Your task to perform on an android device: open the mobile data screen to see how much data has been used Image 0: 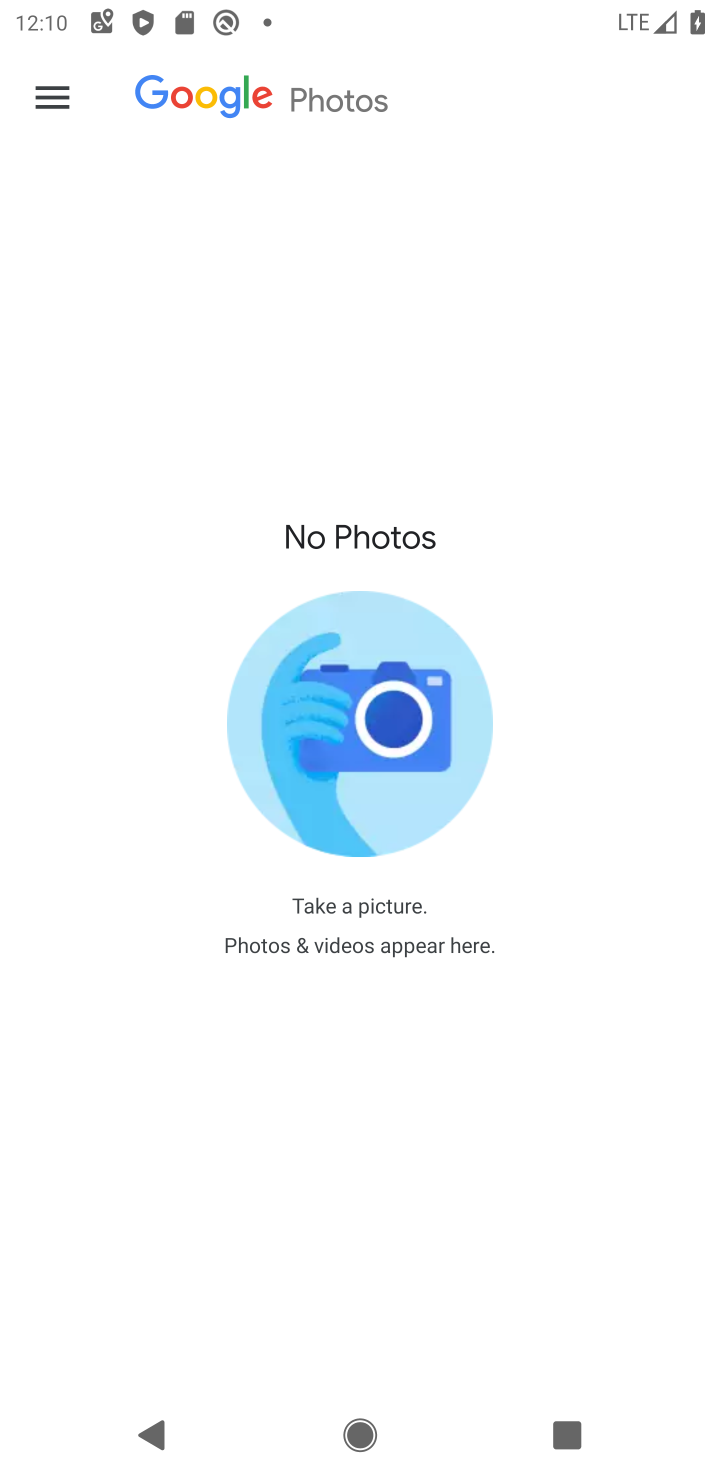
Step 0: press home button
Your task to perform on an android device: open the mobile data screen to see how much data has been used Image 1: 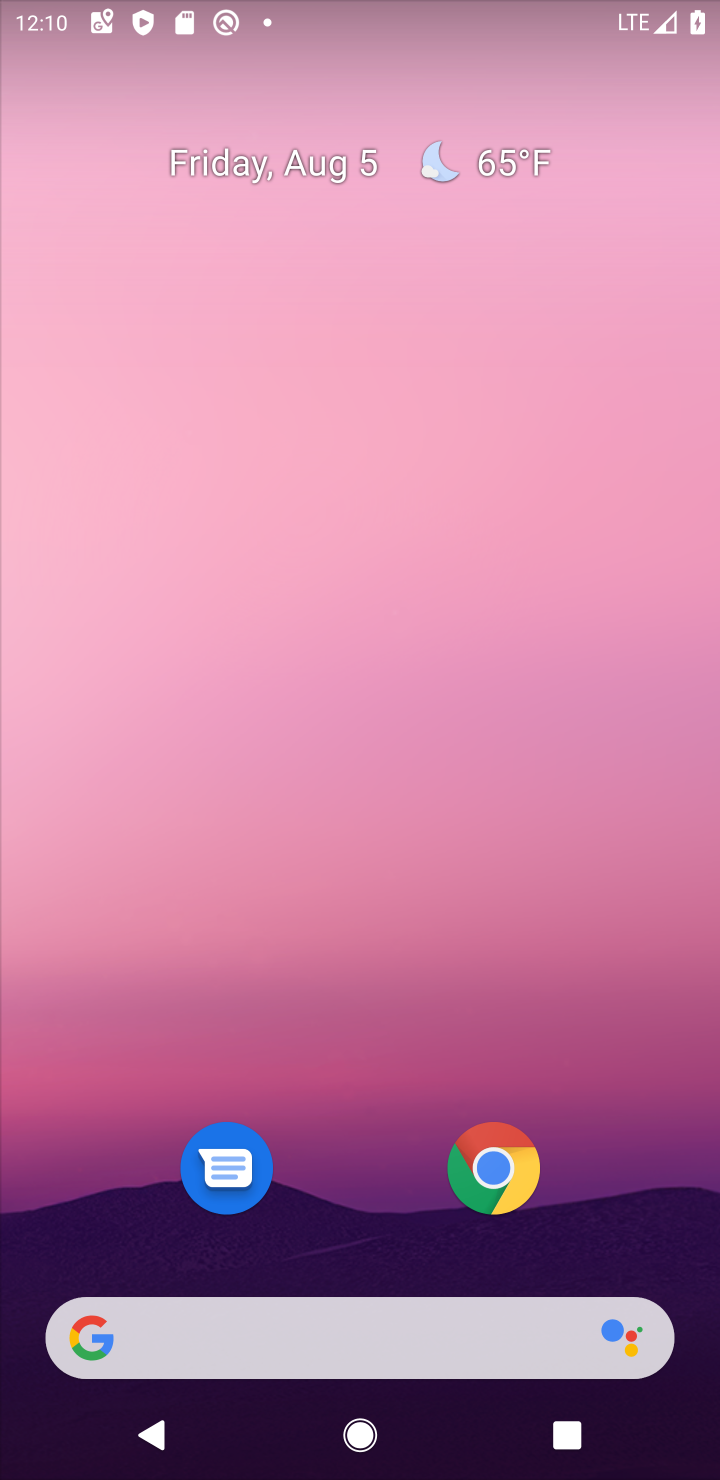
Step 1: drag from (655, 1209) to (363, 102)
Your task to perform on an android device: open the mobile data screen to see how much data has been used Image 2: 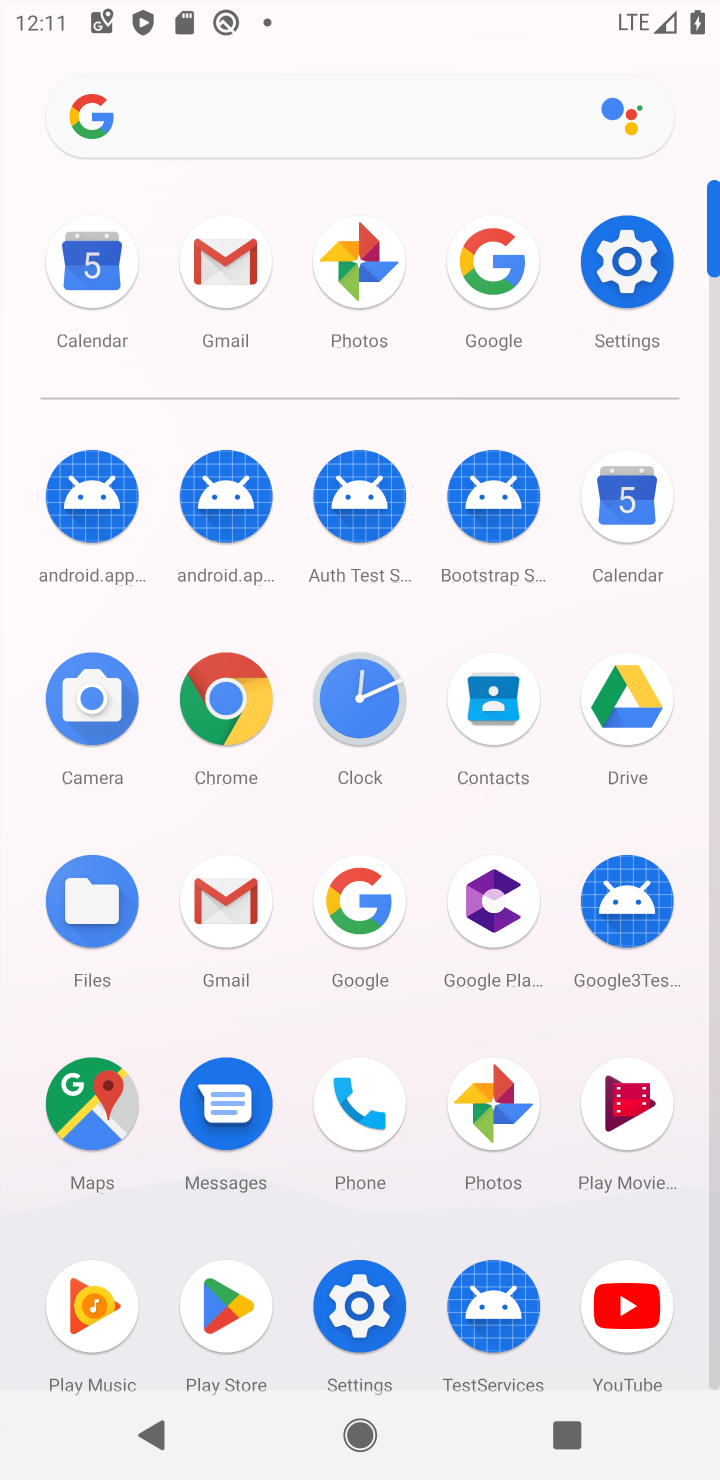
Step 2: click (628, 266)
Your task to perform on an android device: open the mobile data screen to see how much data has been used Image 3: 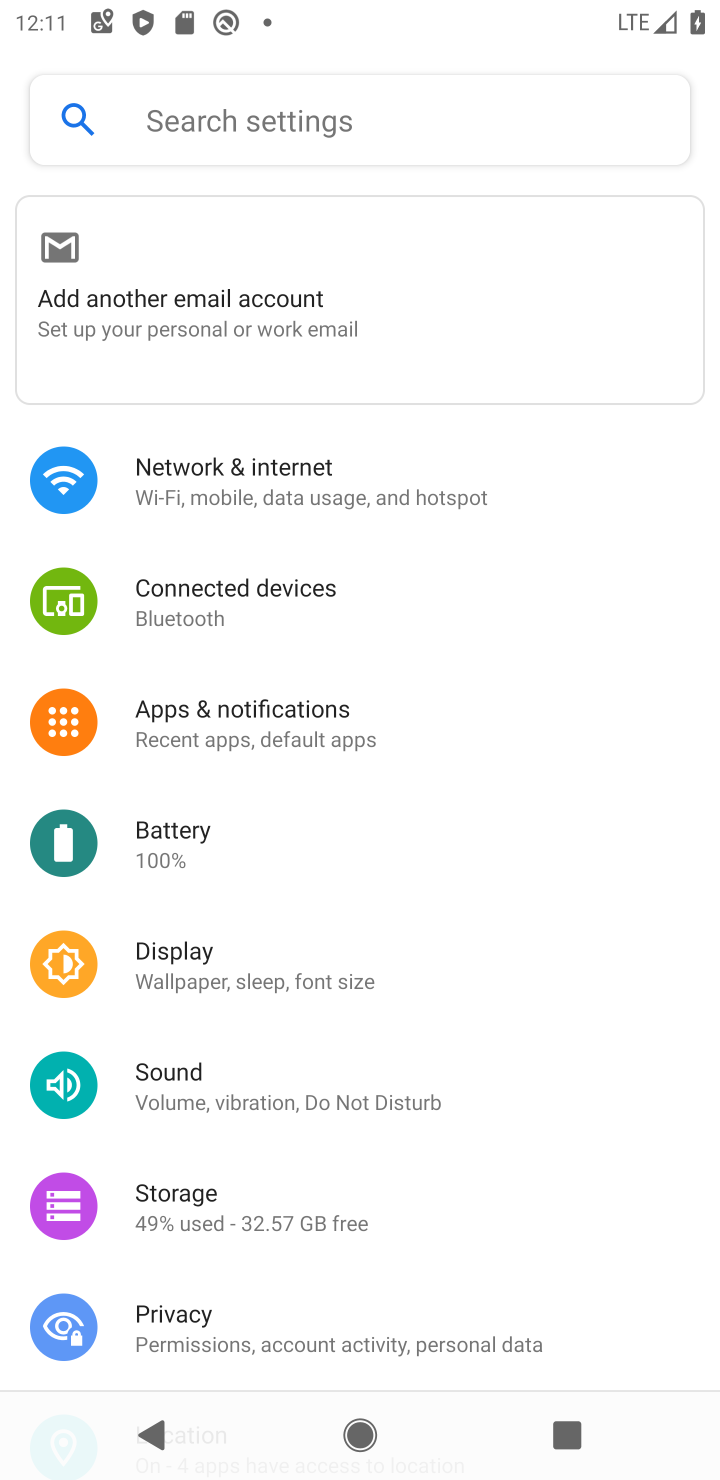
Step 3: task complete